Your task to perform on an android device: open app "Lyft - Rideshare, Bikes, Scooters & Transit" (install if not already installed), go to login, and select forgot password Image 0: 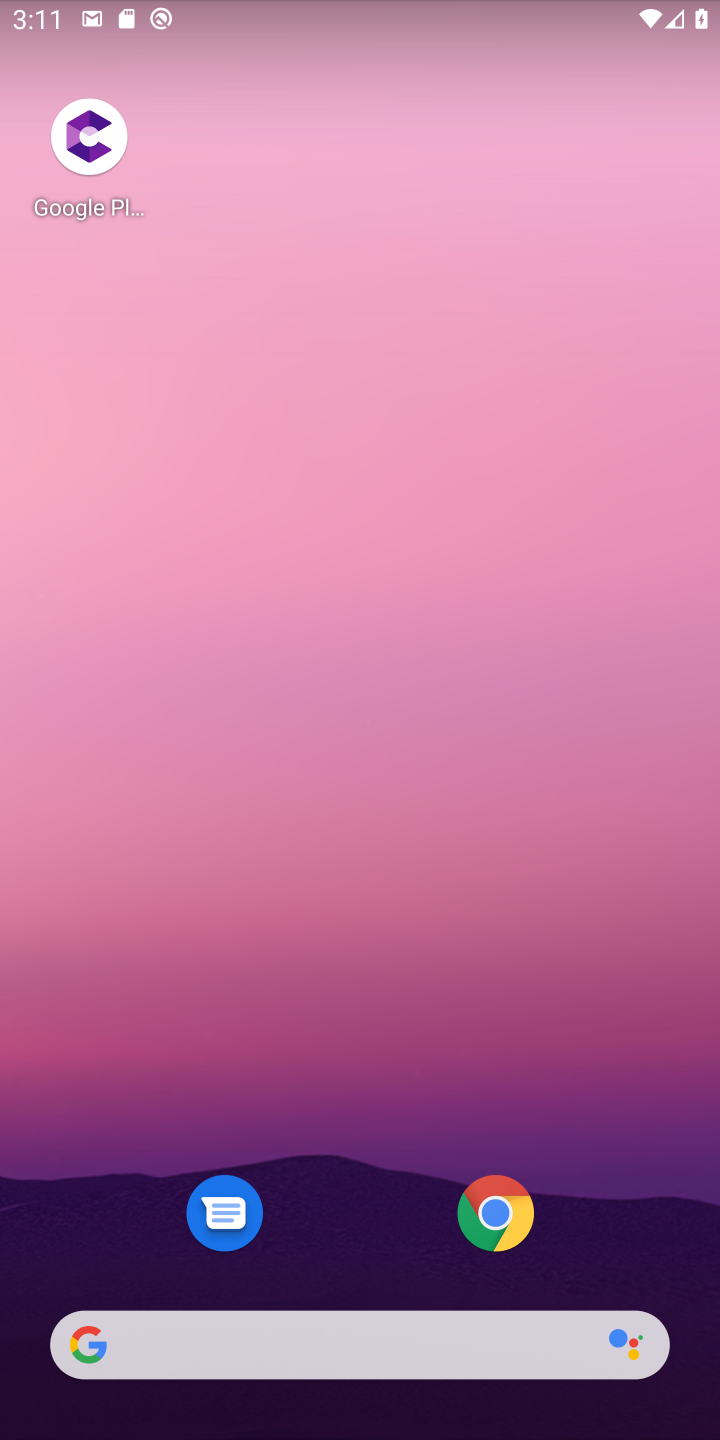
Step 0: press home button
Your task to perform on an android device: open app "Lyft - Rideshare, Bikes, Scooters & Transit" (install if not already installed), go to login, and select forgot password Image 1: 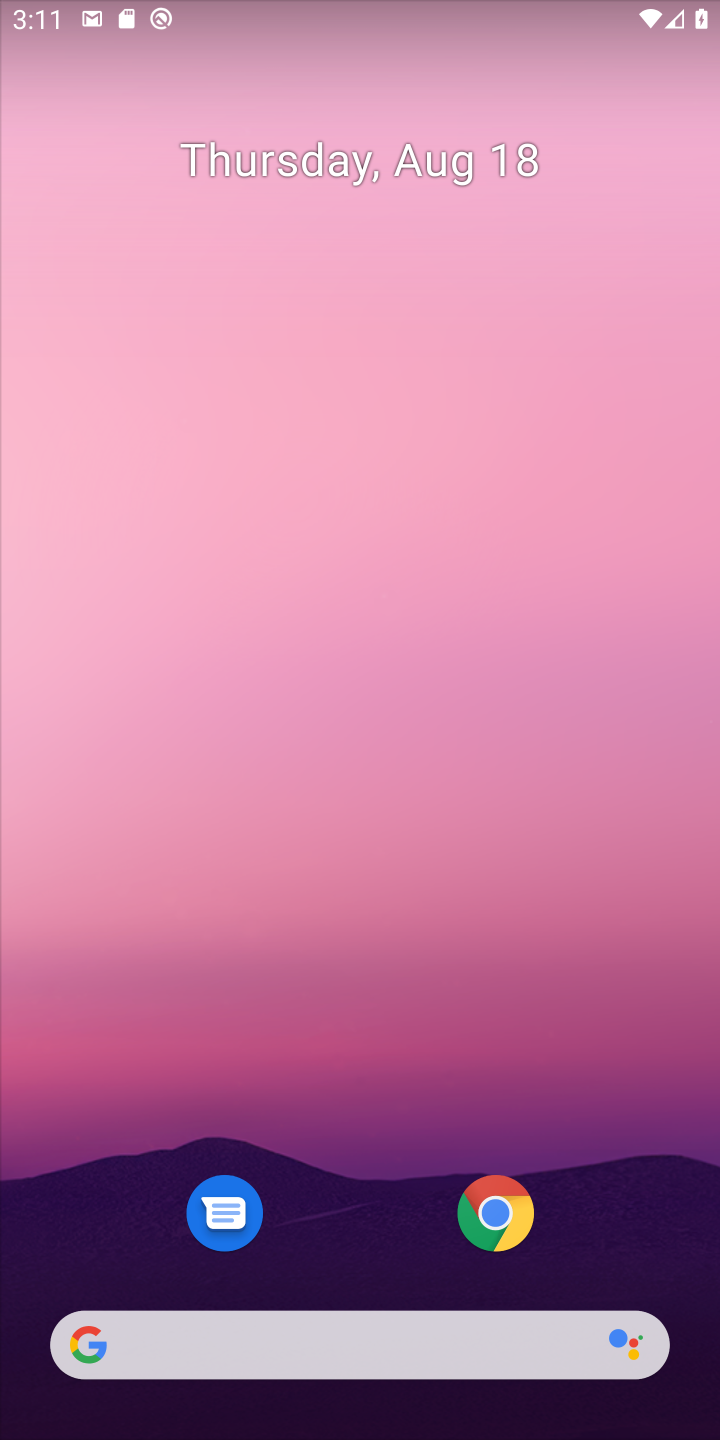
Step 1: drag from (624, 1189) to (596, 322)
Your task to perform on an android device: open app "Lyft - Rideshare, Bikes, Scooters & Transit" (install if not already installed), go to login, and select forgot password Image 2: 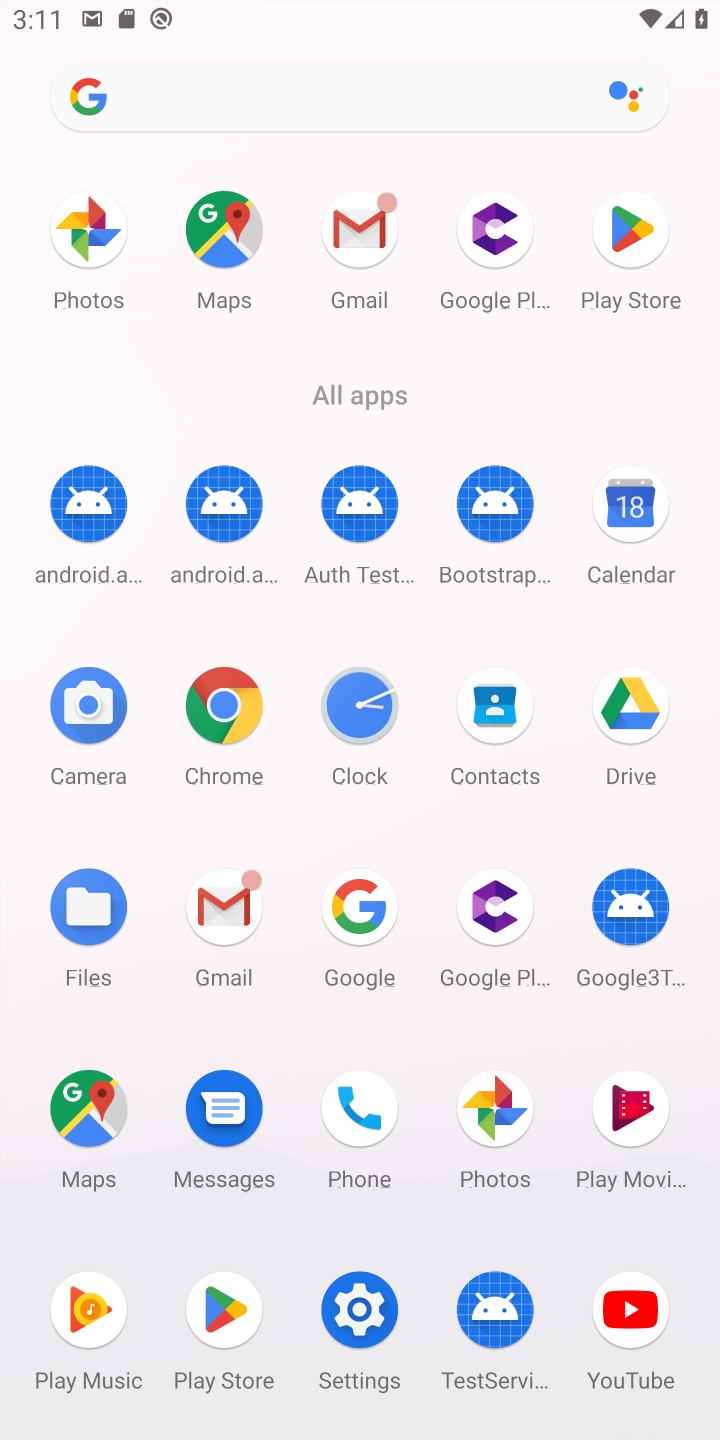
Step 2: click (224, 1309)
Your task to perform on an android device: open app "Lyft - Rideshare, Bikes, Scooters & Transit" (install if not already installed), go to login, and select forgot password Image 3: 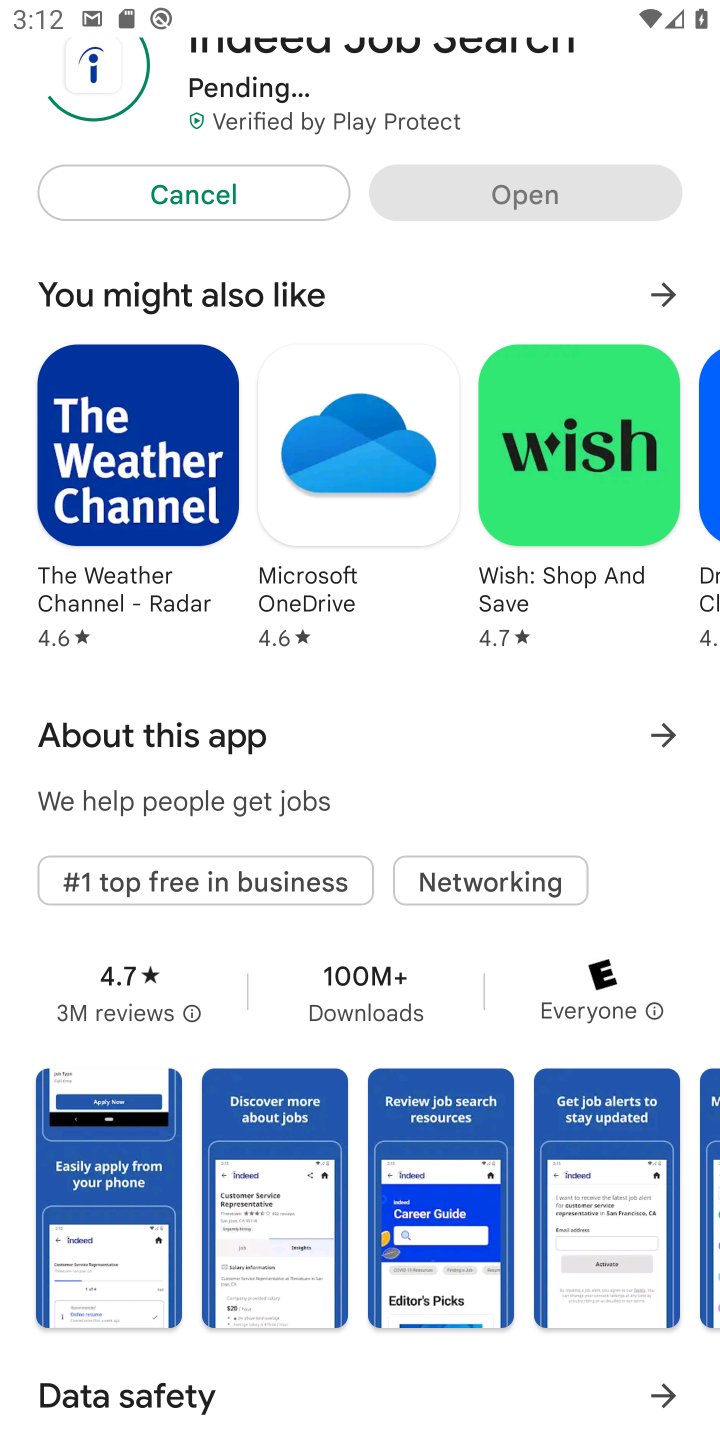
Step 3: drag from (514, 362) to (489, 681)
Your task to perform on an android device: open app "Lyft - Rideshare, Bikes, Scooters & Transit" (install if not already installed), go to login, and select forgot password Image 4: 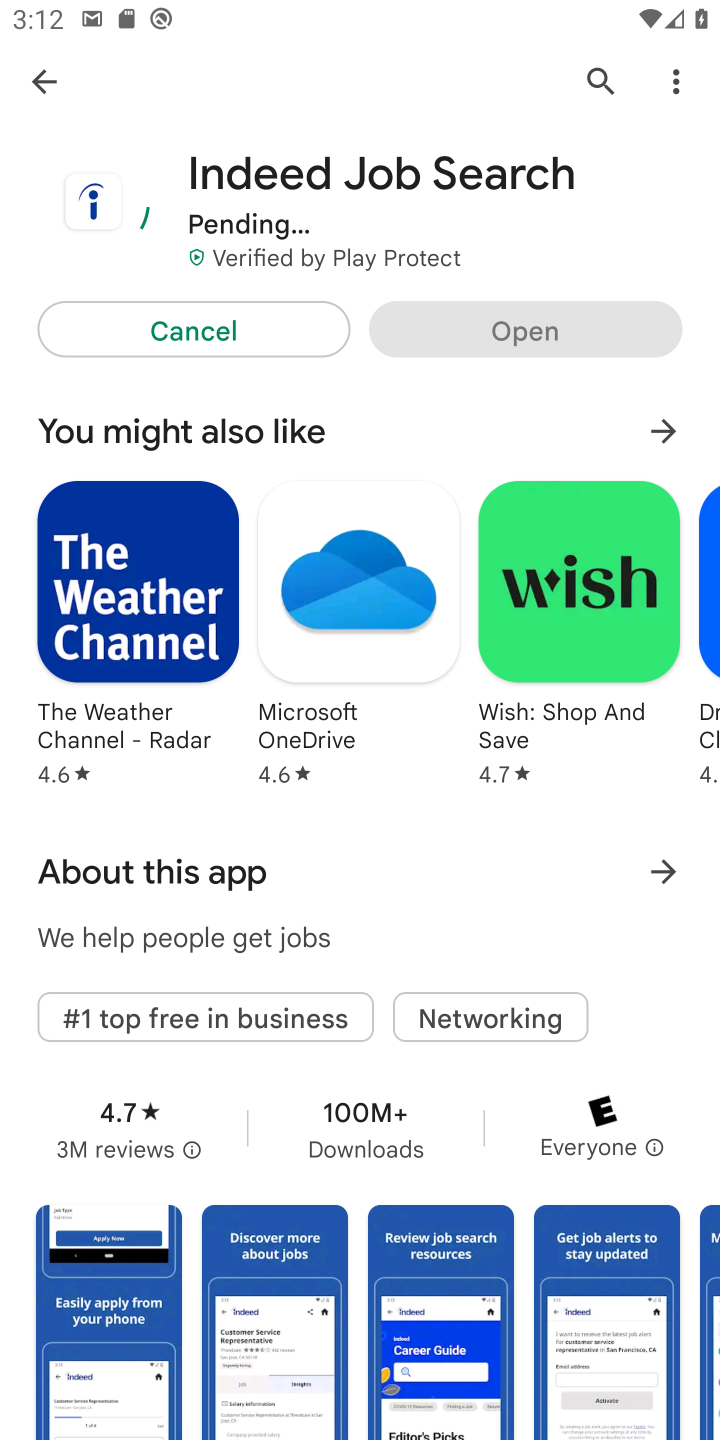
Step 4: click (601, 79)
Your task to perform on an android device: open app "Lyft - Rideshare, Bikes, Scooters & Transit" (install if not already installed), go to login, and select forgot password Image 5: 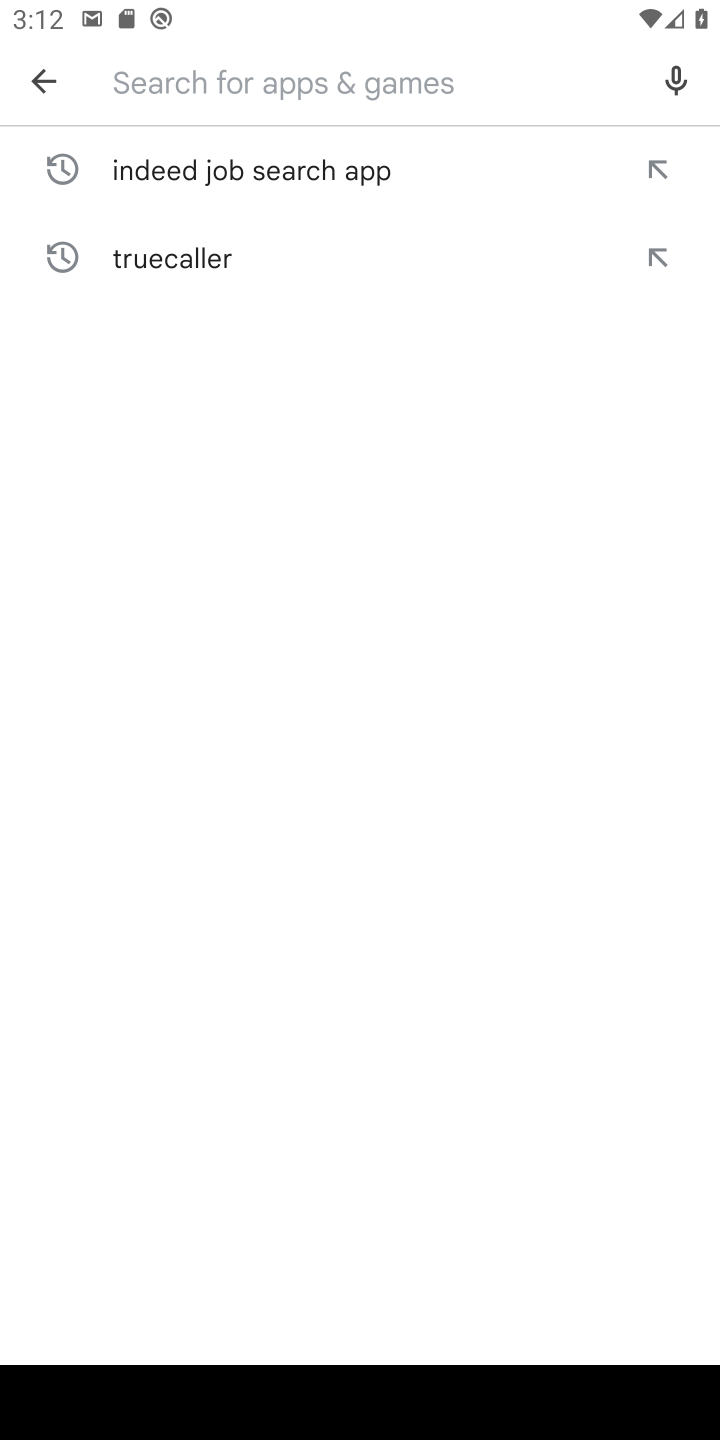
Step 5: type "Lyft "
Your task to perform on an android device: open app "Lyft - Rideshare, Bikes, Scooters & Transit" (install if not already installed), go to login, and select forgot password Image 6: 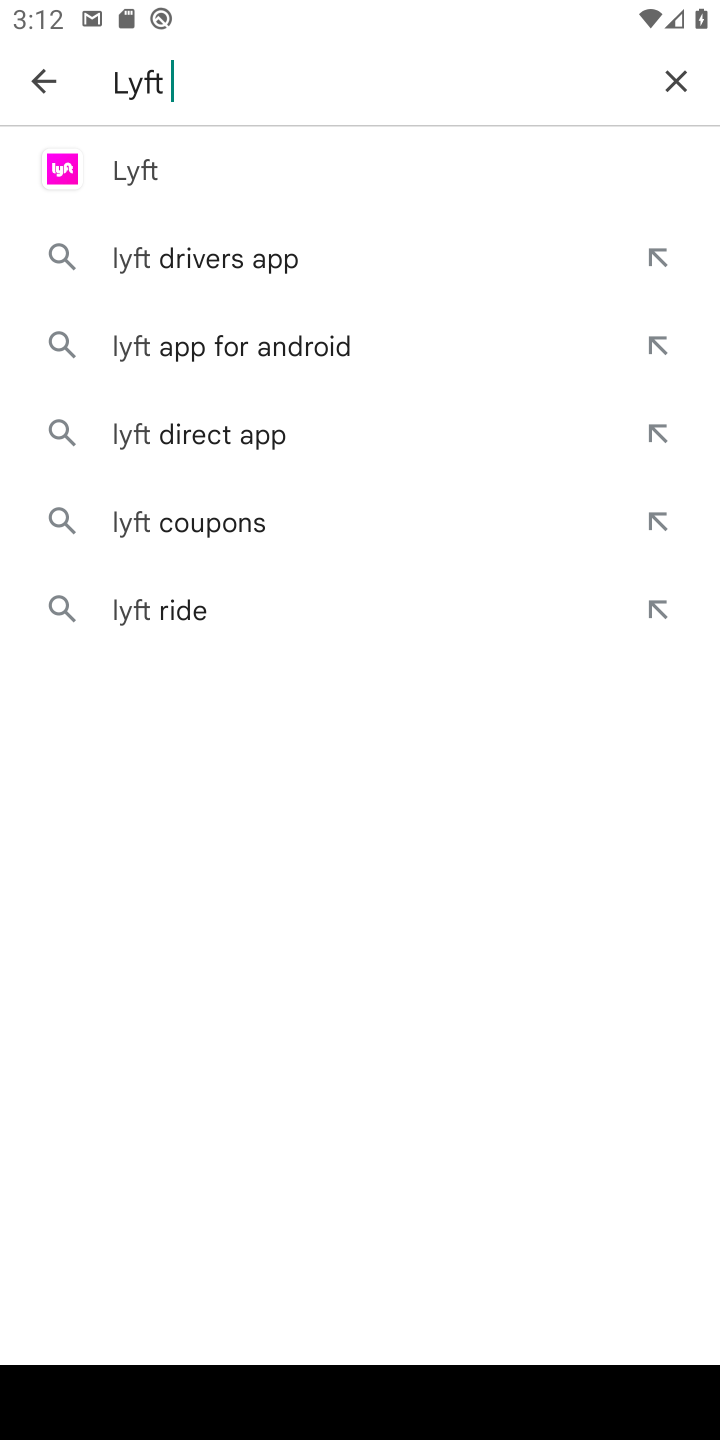
Step 6: click (141, 161)
Your task to perform on an android device: open app "Lyft - Rideshare, Bikes, Scooters & Transit" (install if not already installed), go to login, and select forgot password Image 7: 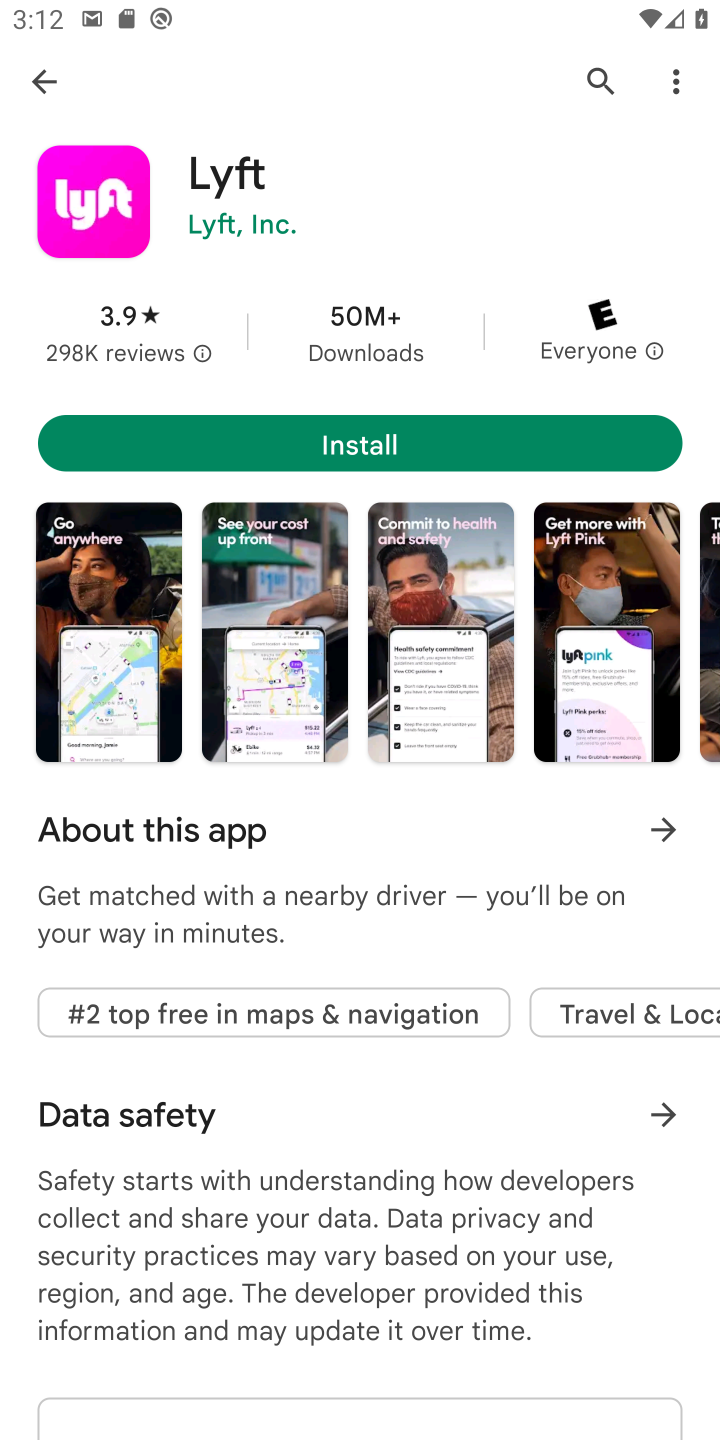
Step 7: click (368, 450)
Your task to perform on an android device: open app "Lyft - Rideshare, Bikes, Scooters & Transit" (install if not already installed), go to login, and select forgot password Image 8: 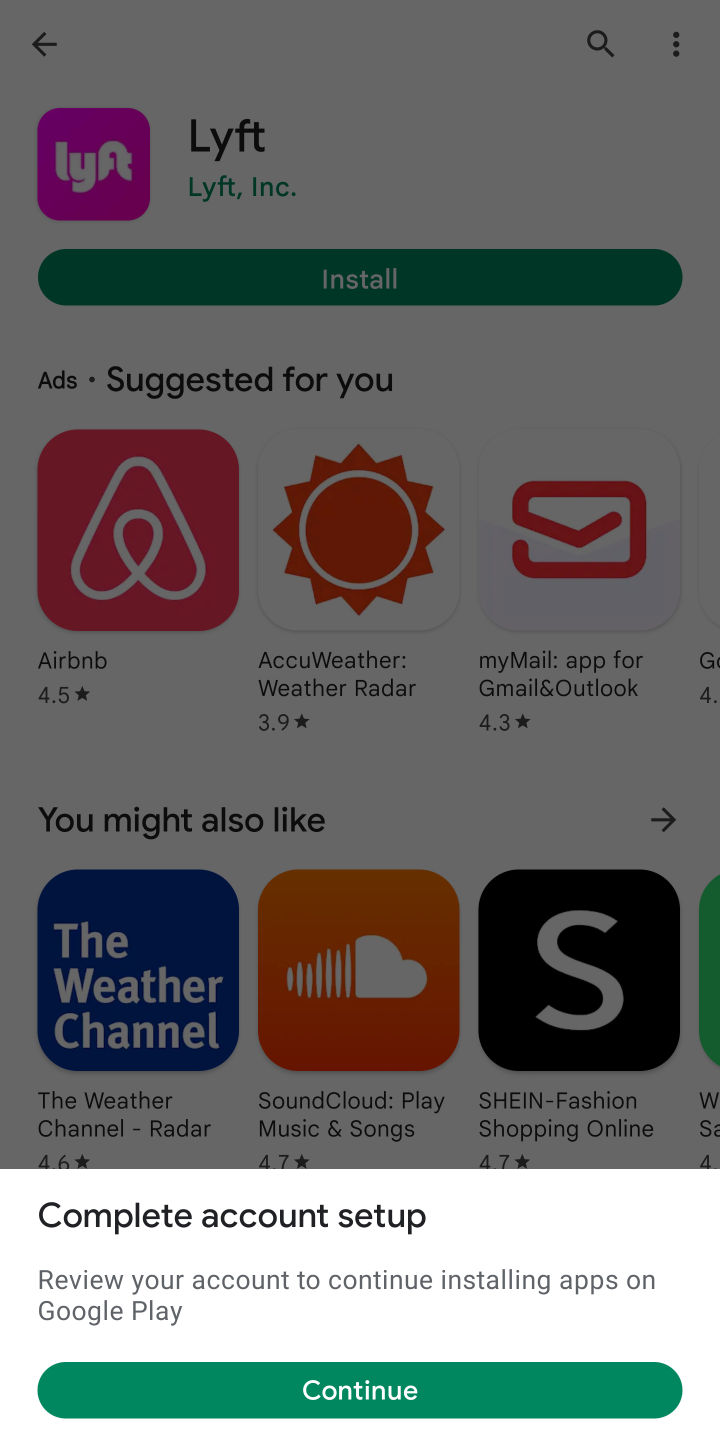
Step 8: click (342, 1388)
Your task to perform on an android device: open app "Lyft - Rideshare, Bikes, Scooters & Transit" (install if not already installed), go to login, and select forgot password Image 9: 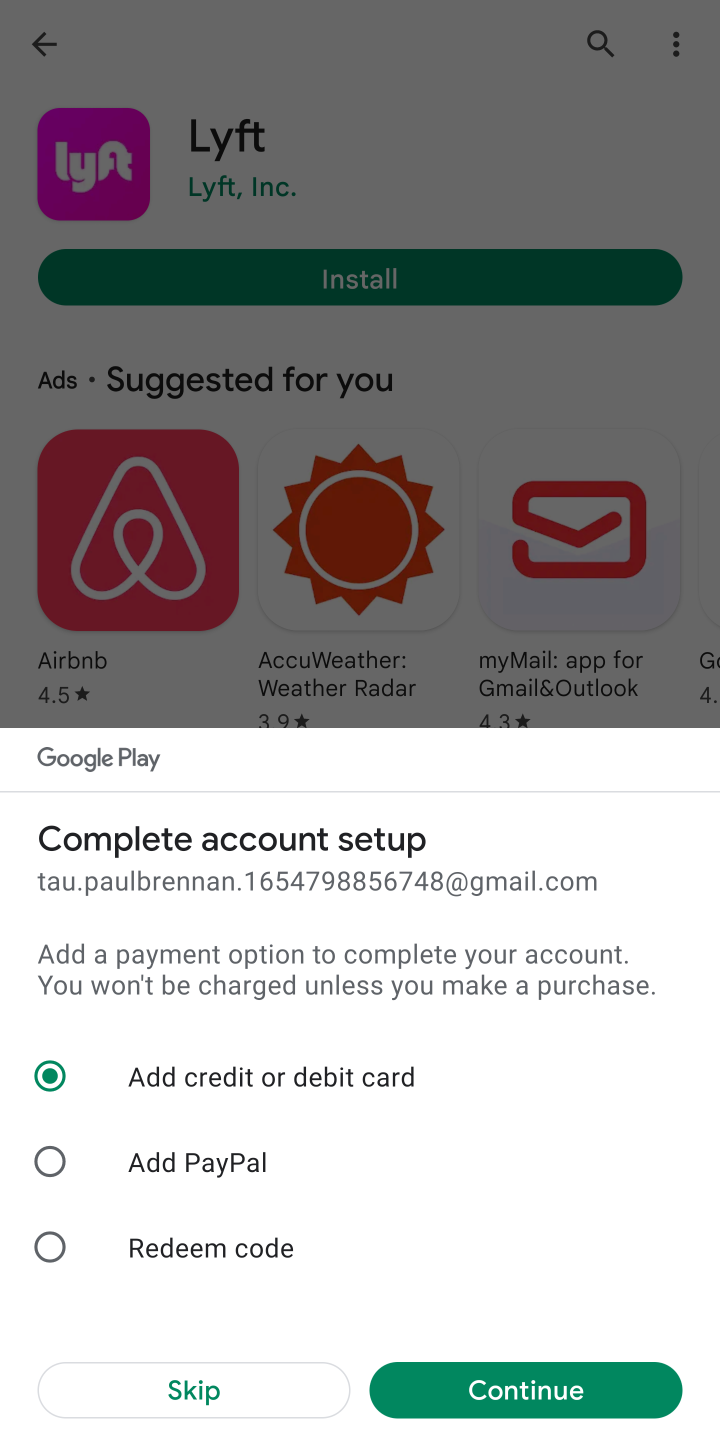
Step 9: click (179, 1391)
Your task to perform on an android device: open app "Lyft - Rideshare, Bikes, Scooters & Transit" (install if not already installed), go to login, and select forgot password Image 10: 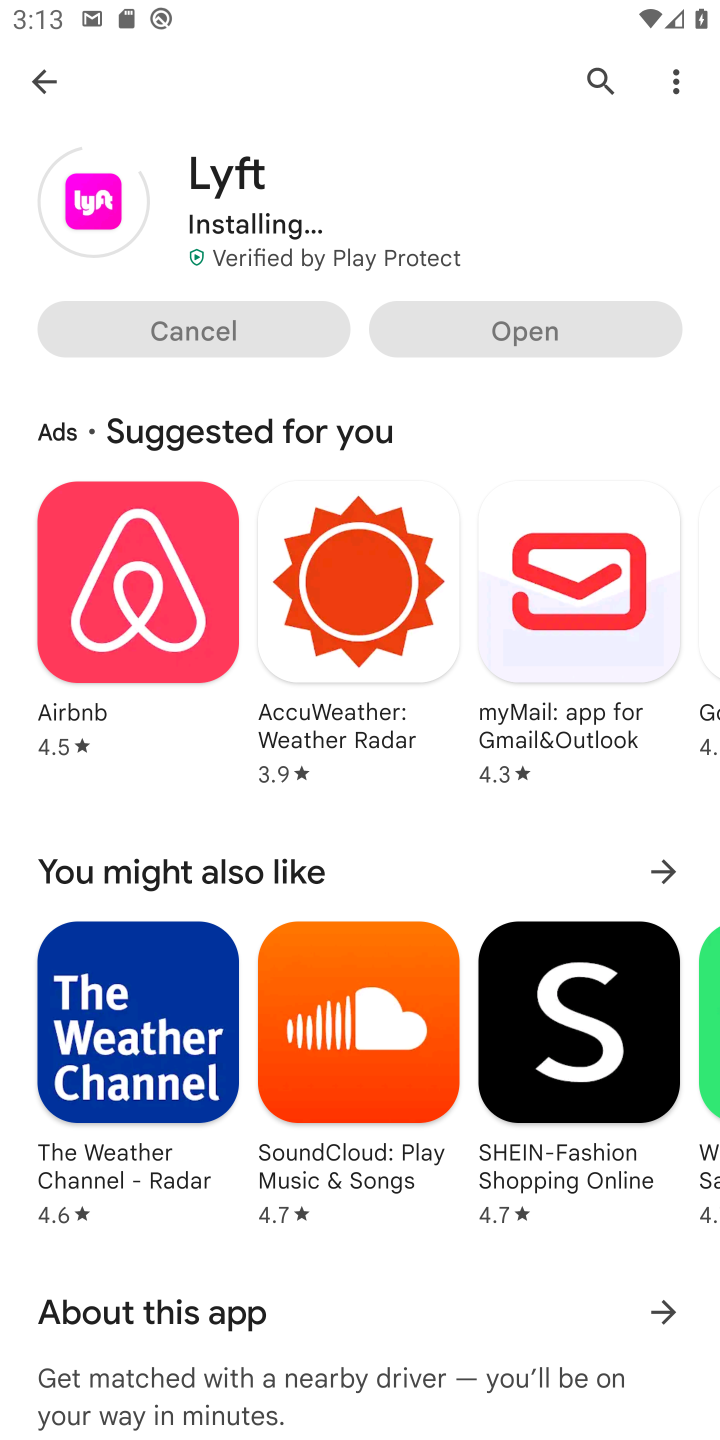
Step 10: drag from (373, 186) to (367, 444)
Your task to perform on an android device: open app "Lyft - Rideshare, Bikes, Scooters & Transit" (install if not already installed), go to login, and select forgot password Image 11: 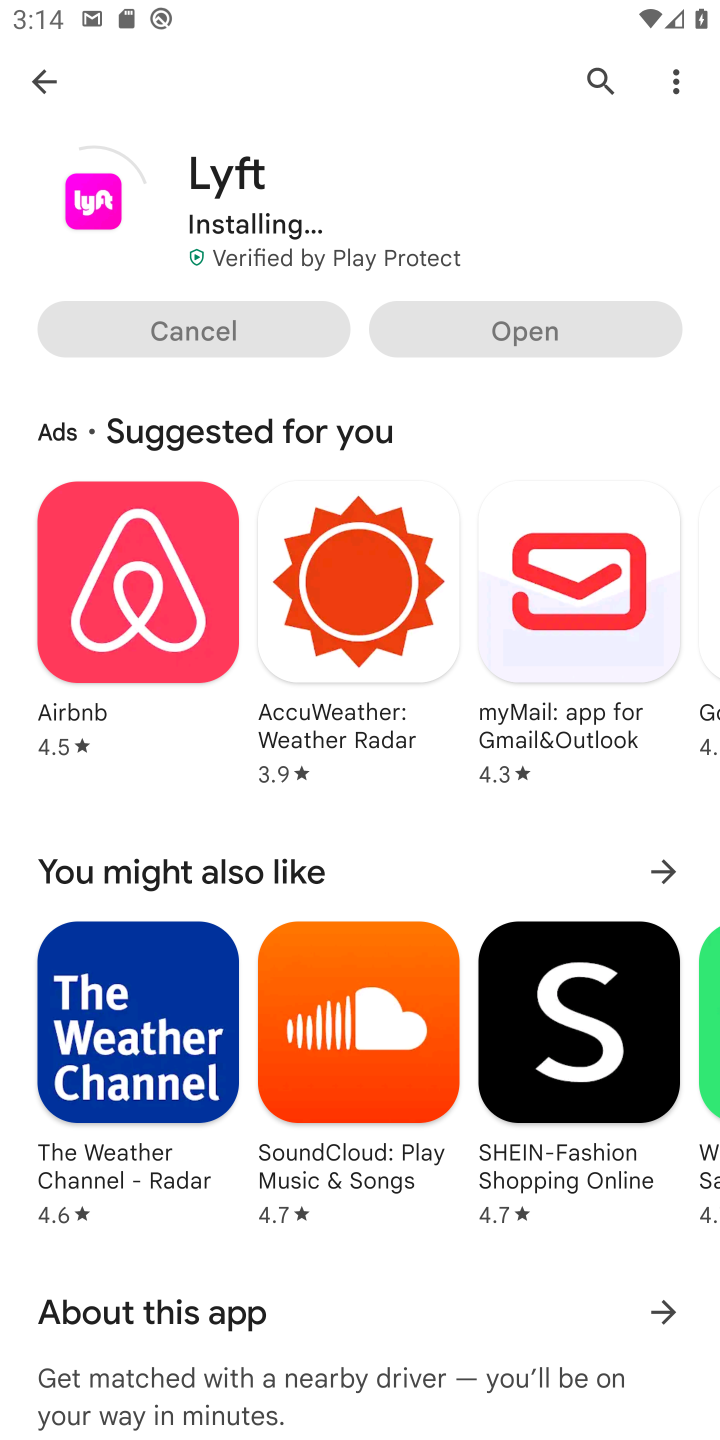
Step 11: drag from (371, 233) to (391, 506)
Your task to perform on an android device: open app "Lyft - Rideshare, Bikes, Scooters & Transit" (install if not already installed), go to login, and select forgot password Image 12: 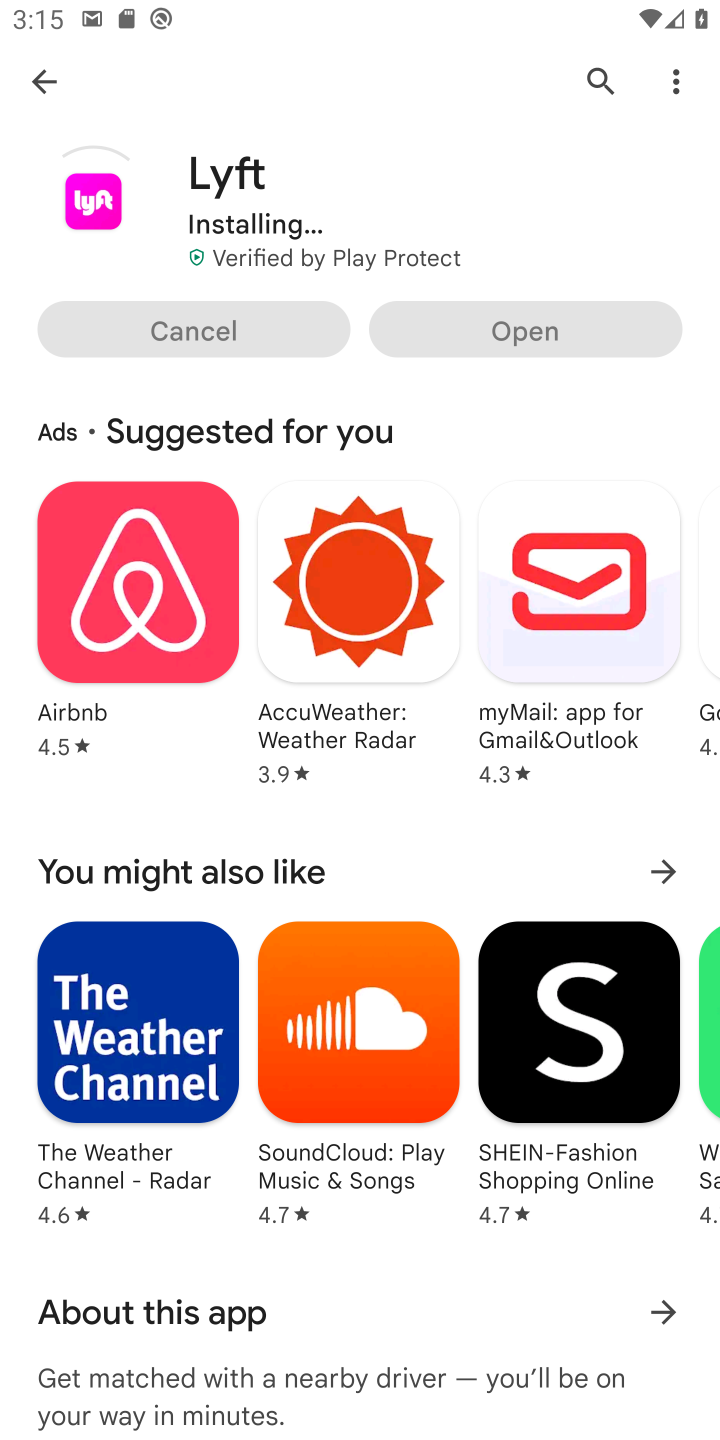
Step 12: click (392, 389)
Your task to perform on an android device: open app "Lyft - Rideshare, Bikes, Scooters & Transit" (install if not already installed), go to login, and select forgot password Image 13: 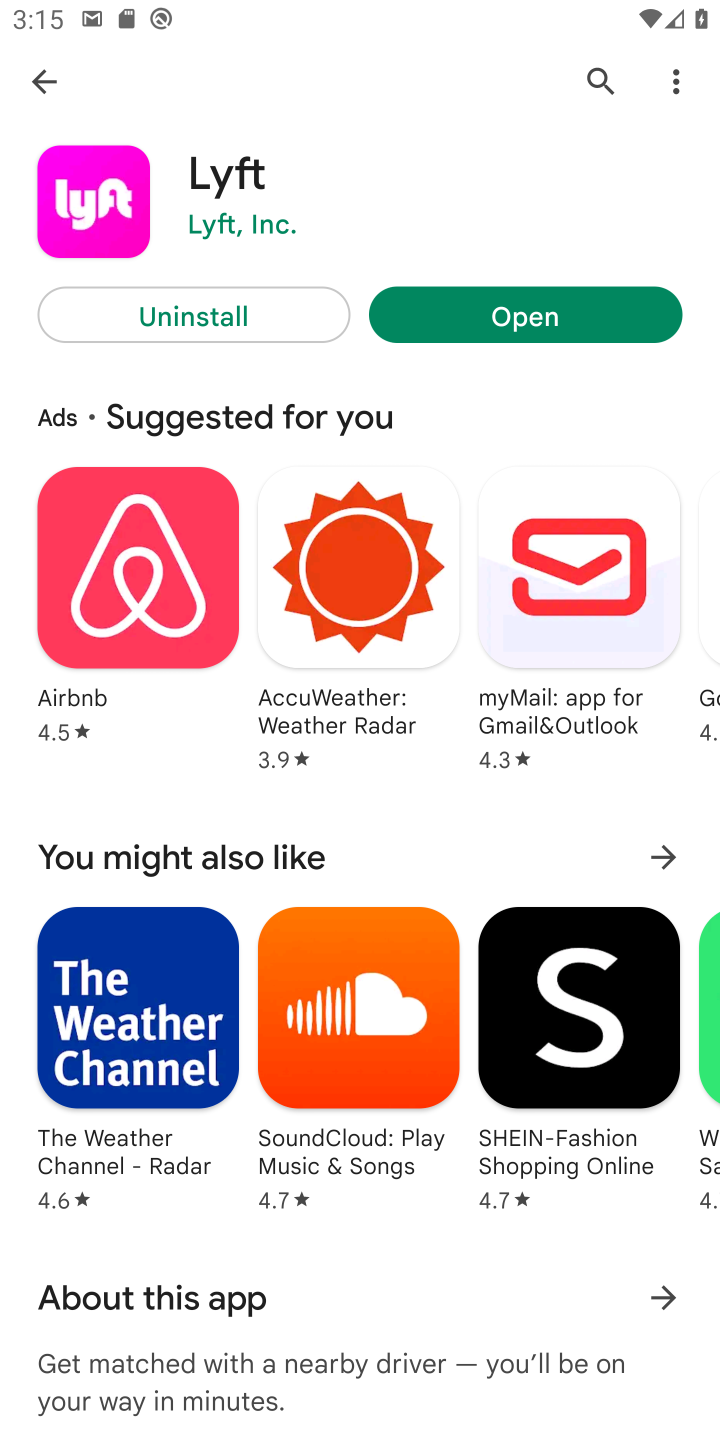
Step 13: click (514, 316)
Your task to perform on an android device: open app "Lyft - Rideshare, Bikes, Scooters & Transit" (install if not already installed), go to login, and select forgot password Image 14: 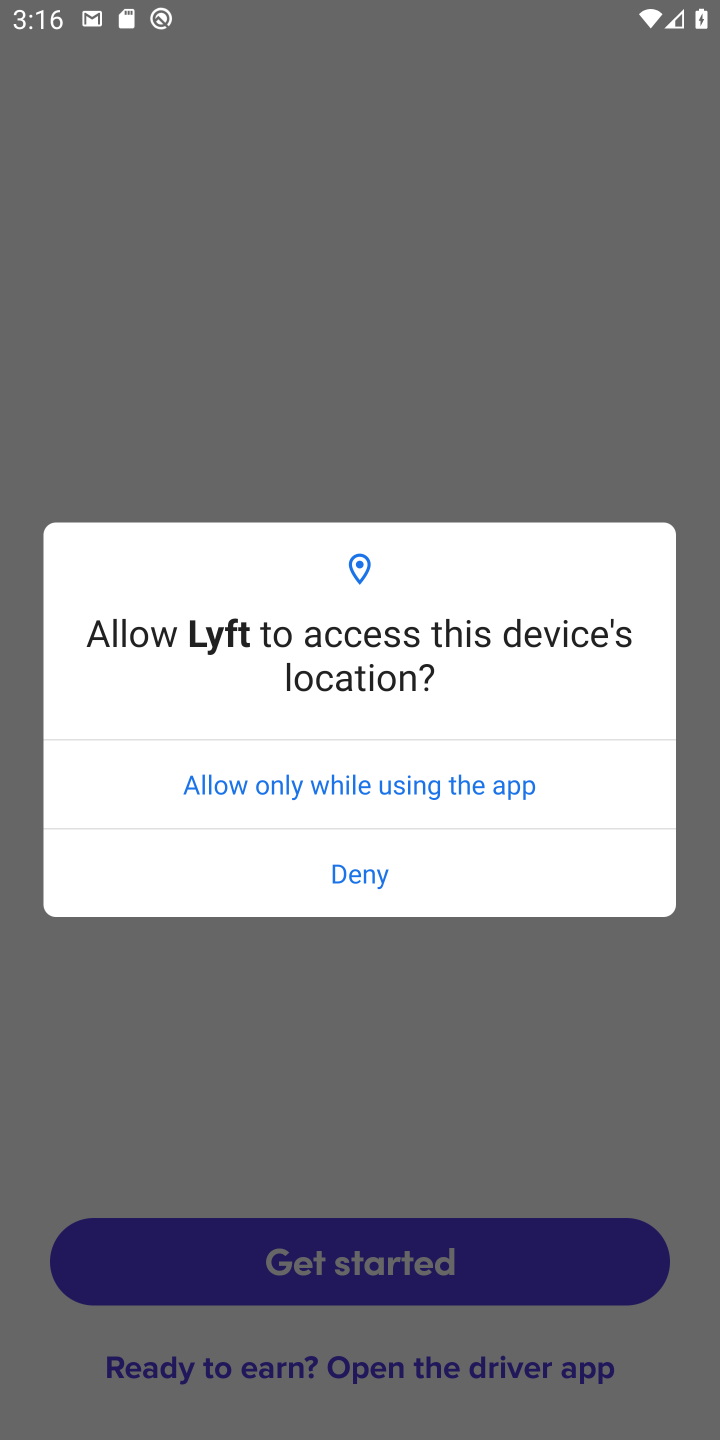
Step 14: click (363, 776)
Your task to perform on an android device: open app "Lyft - Rideshare, Bikes, Scooters & Transit" (install if not already installed), go to login, and select forgot password Image 15: 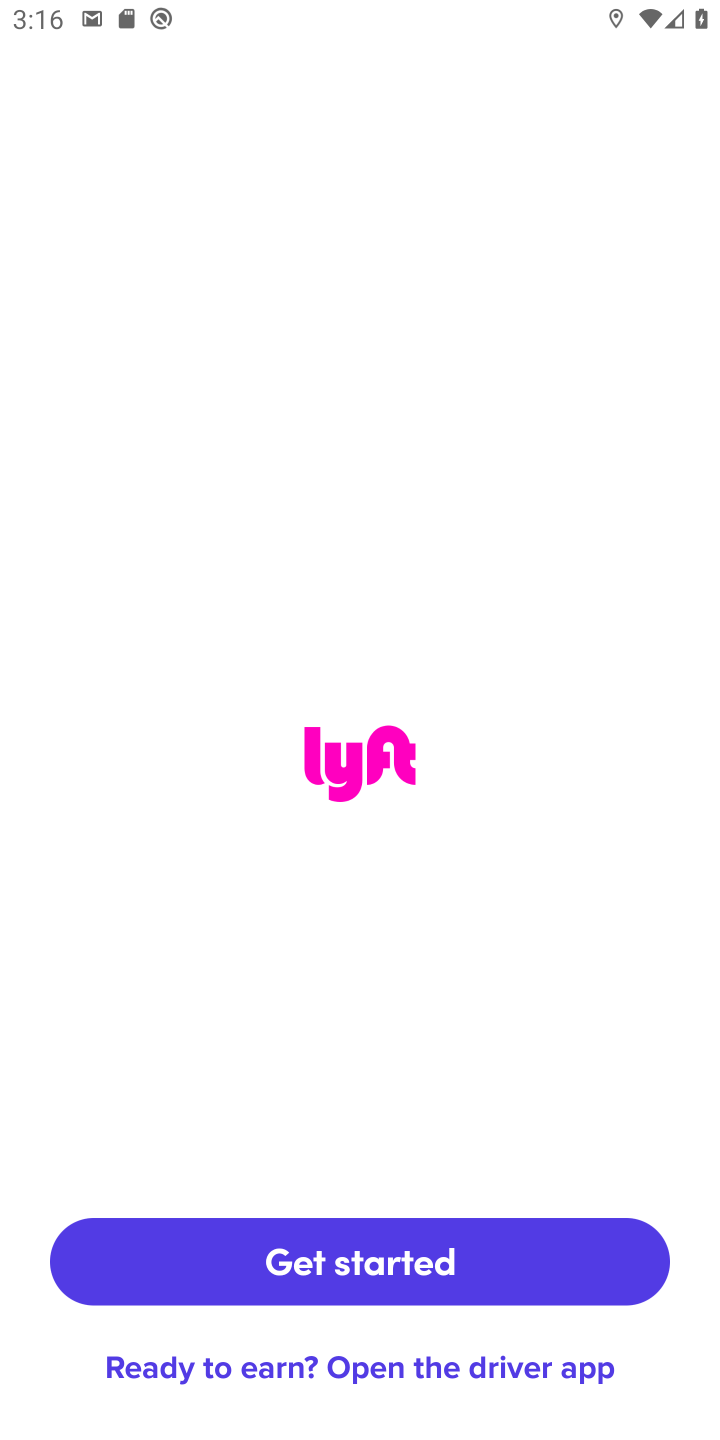
Step 15: click (364, 1264)
Your task to perform on an android device: open app "Lyft - Rideshare, Bikes, Scooters & Transit" (install if not already installed), go to login, and select forgot password Image 16: 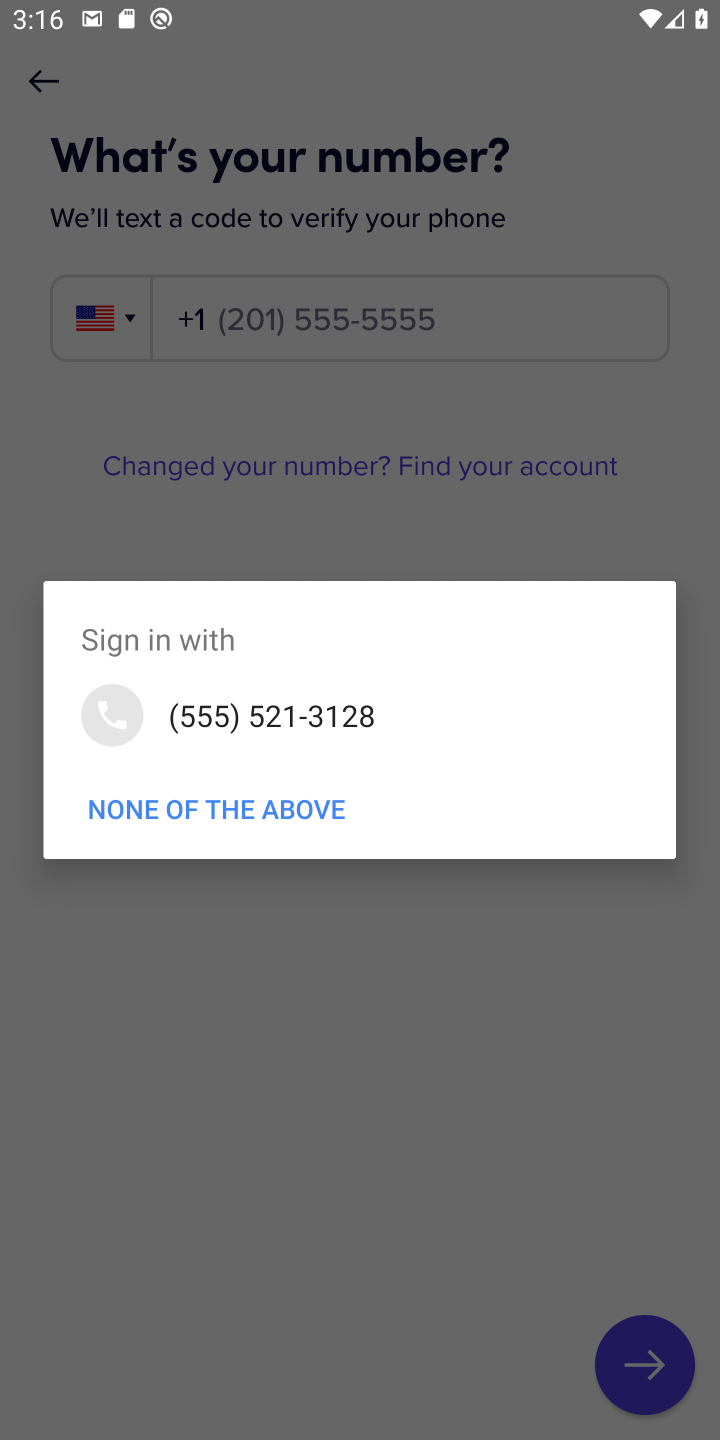
Step 16: click (331, 916)
Your task to perform on an android device: open app "Lyft - Rideshare, Bikes, Scooters & Transit" (install if not already installed), go to login, and select forgot password Image 17: 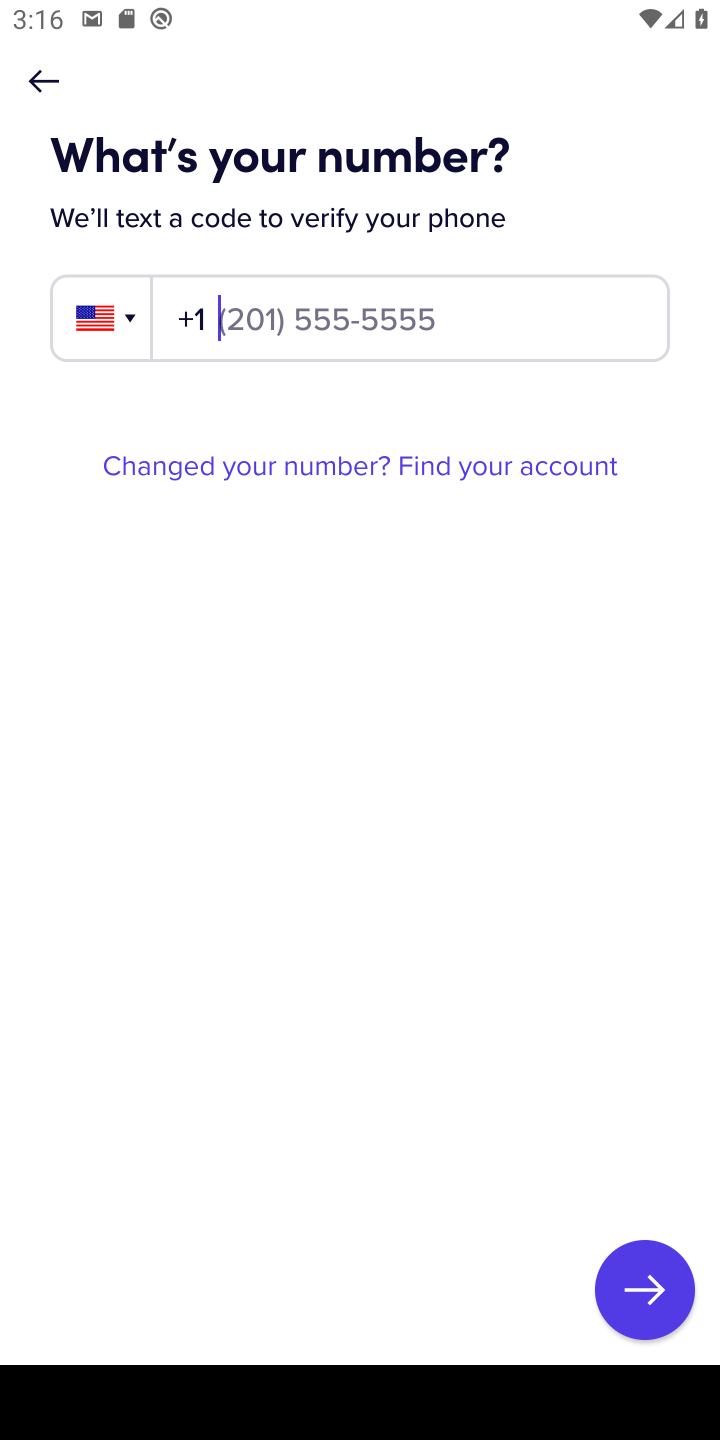
Step 17: task complete